Your task to perform on an android device: turn off location Image 0: 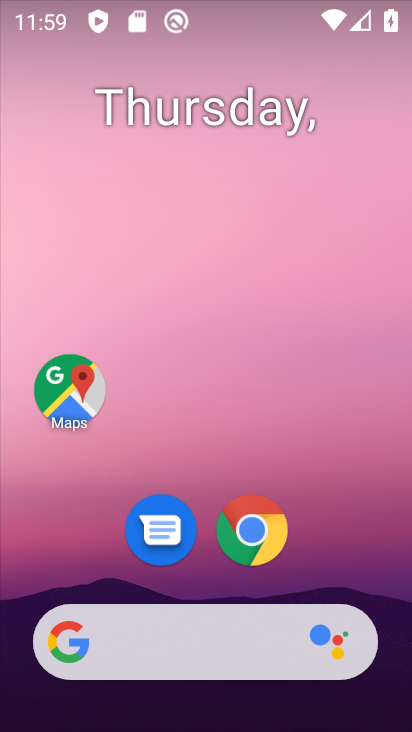
Step 0: drag from (39, 598) to (240, 85)
Your task to perform on an android device: turn off location Image 1: 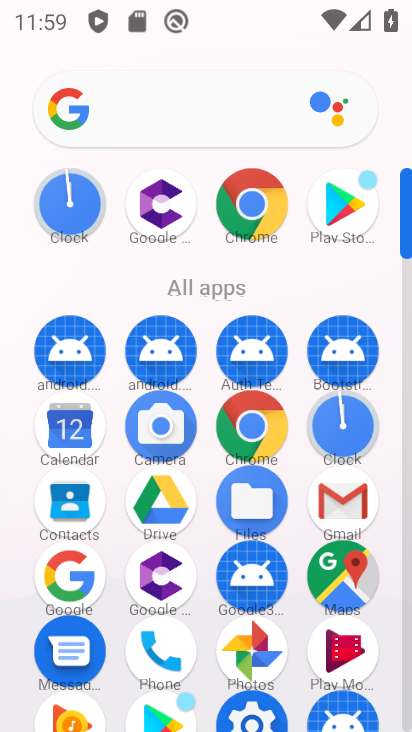
Step 1: drag from (292, 597) to (376, 236)
Your task to perform on an android device: turn off location Image 2: 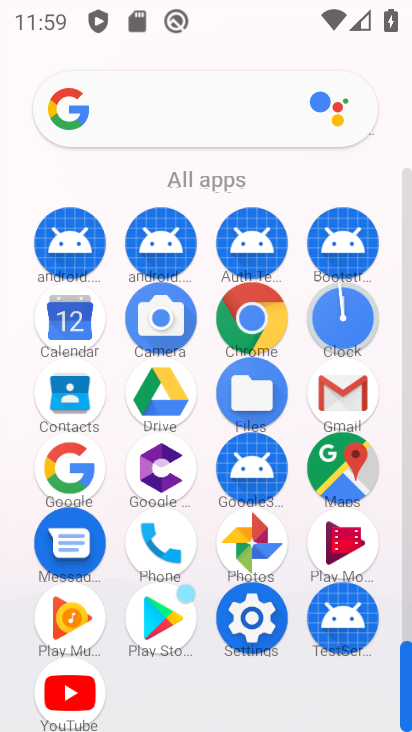
Step 2: click (255, 605)
Your task to perform on an android device: turn off location Image 3: 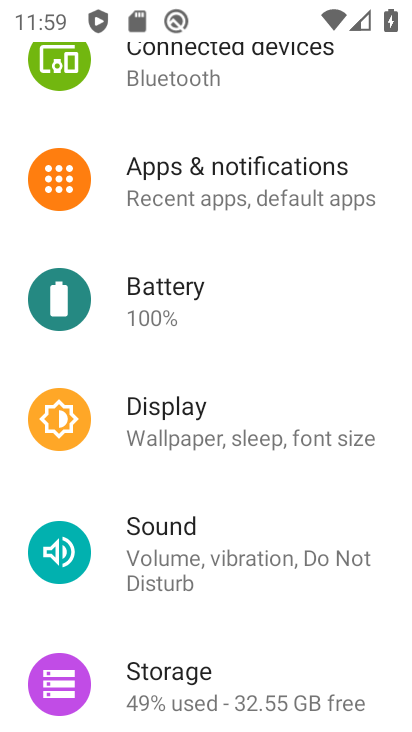
Step 3: drag from (190, 724) to (256, 401)
Your task to perform on an android device: turn off location Image 4: 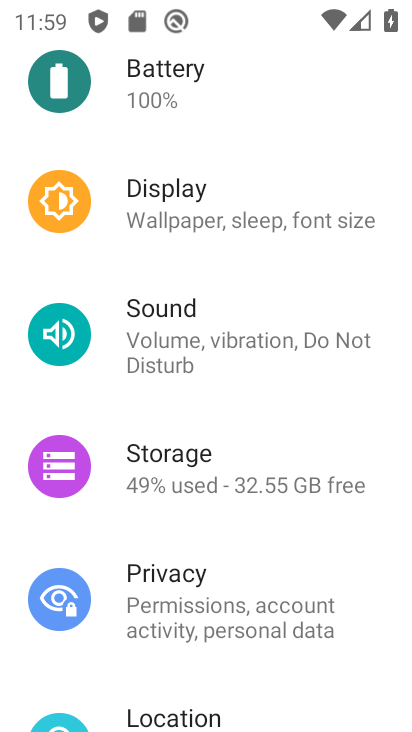
Step 4: drag from (186, 605) to (289, 204)
Your task to perform on an android device: turn off location Image 5: 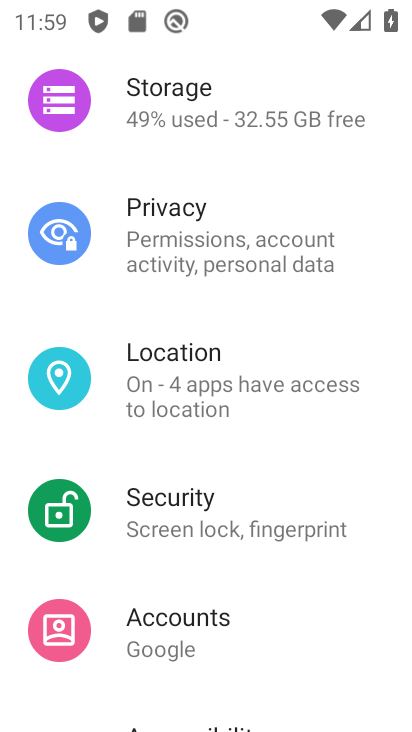
Step 5: click (201, 366)
Your task to perform on an android device: turn off location Image 6: 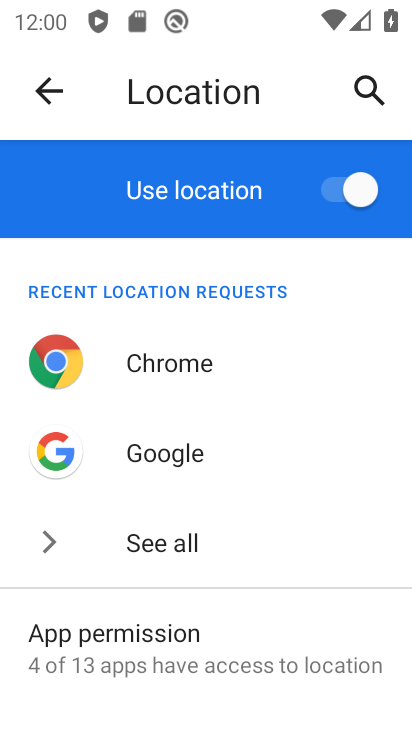
Step 6: click (330, 191)
Your task to perform on an android device: turn off location Image 7: 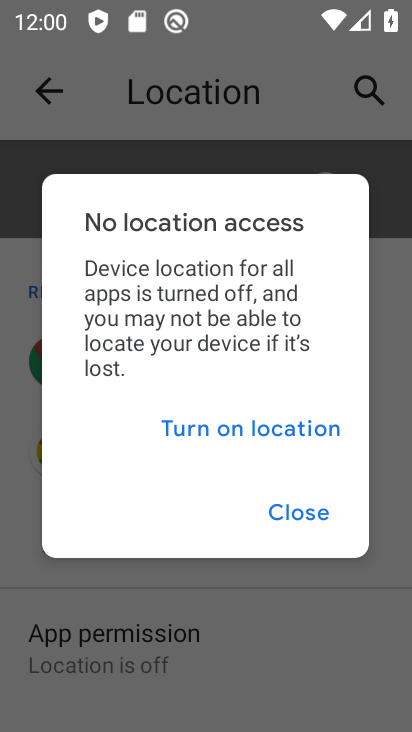
Step 7: click (292, 515)
Your task to perform on an android device: turn off location Image 8: 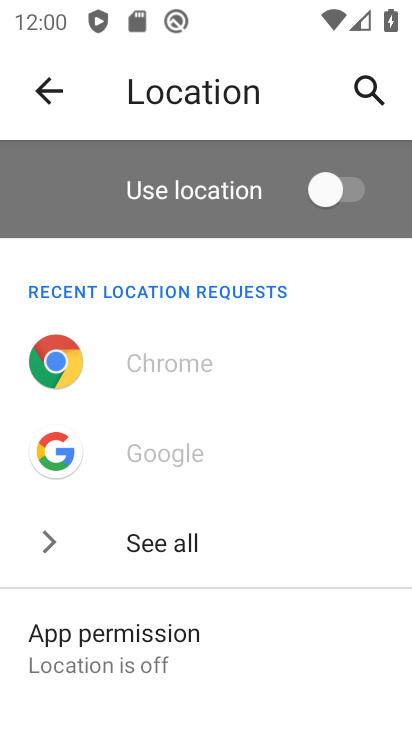
Step 8: task complete